Your task to perform on an android device: Go to display settings Image 0: 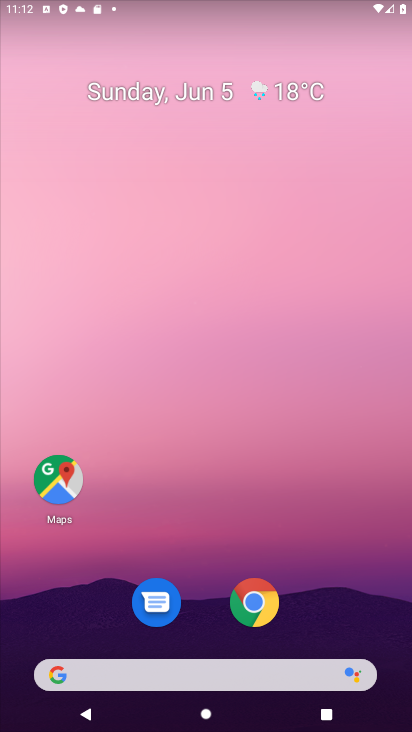
Step 0: task complete